Your task to perform on an android device: add a contact in the contacts app Image 0: 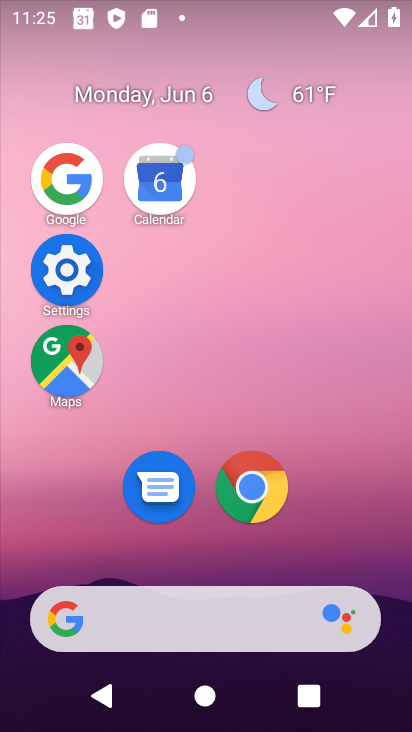
Step 0: press home button
Your task to perform on an android device: add a contact in the contacts app Image 1: 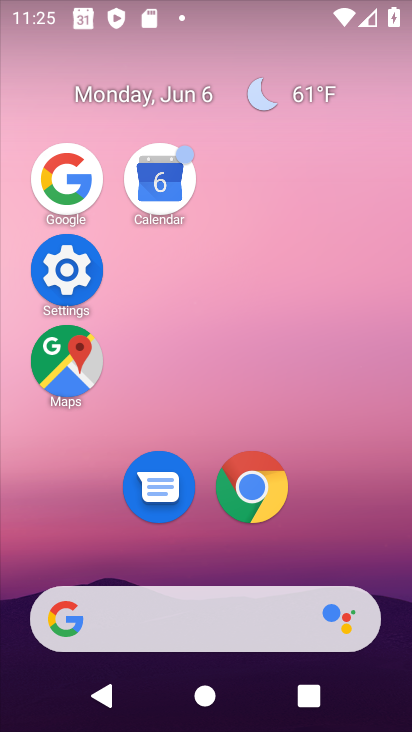
Step 1: drag from (312, 502) to (285, 119)
Your task to perform on an android device: add a contact in the contacts app Image 2: 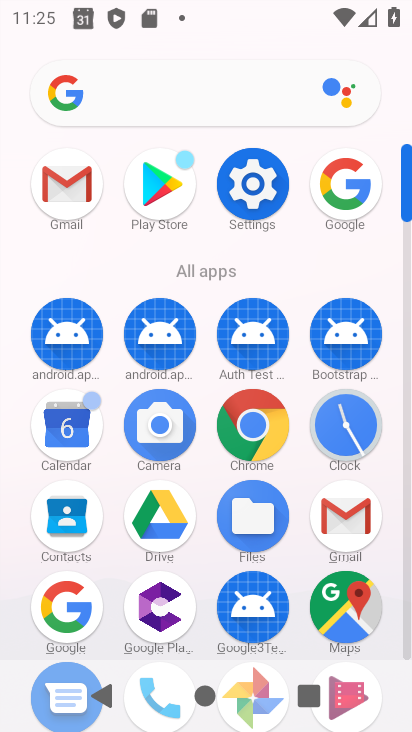
Step 2: click (58, 520)
Your task to perform on an android device: add a contact in the contacts app Image 3: 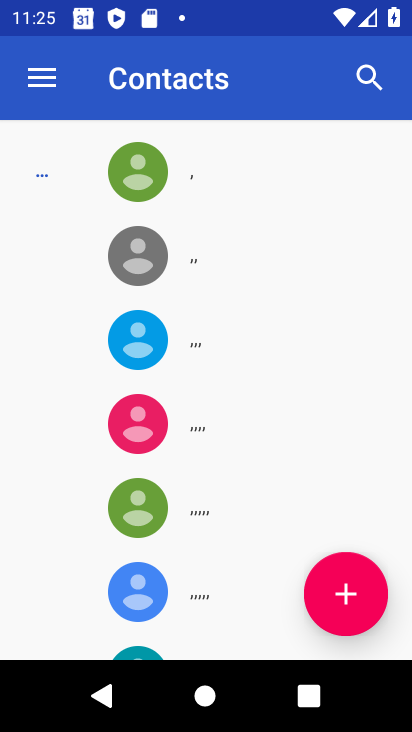
Step 3: click (384, 565)
Your task to perform on an android device: add a contact in the contacts app Image 4: 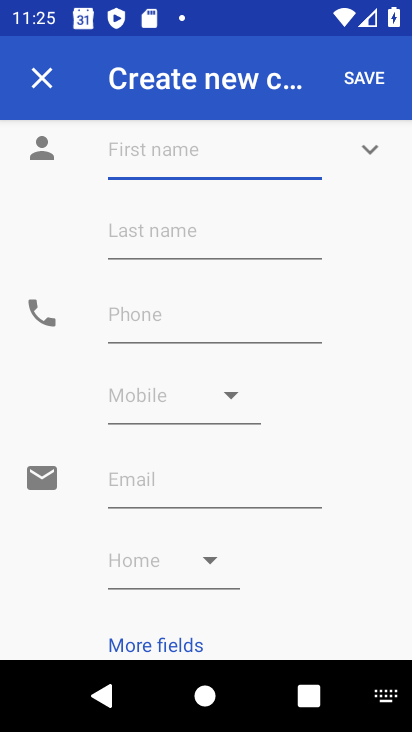
Step 4: type "wwq"
Your task to perform on an android device: add a contact in the contacts app Image 5: 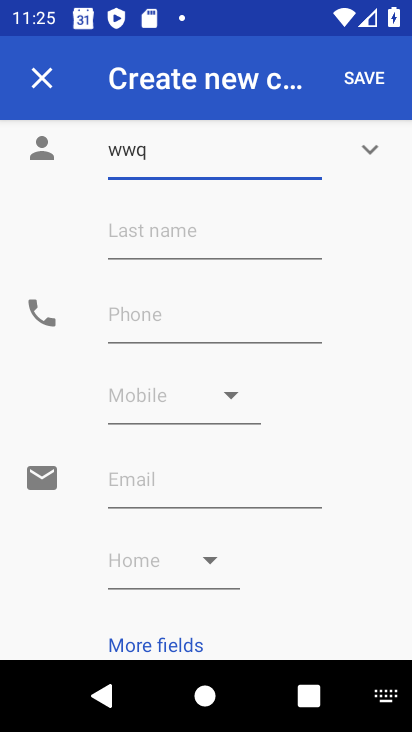
Step 5: click (192, 316)
Your task to perform on an android device: add a contact in the contacts app Image 6: 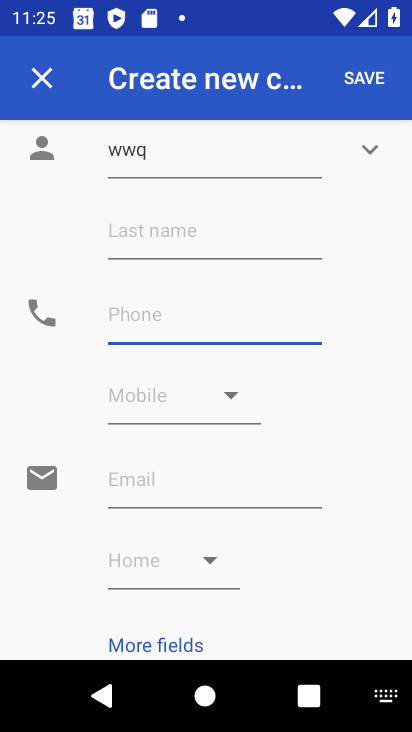
Step 6: type "1122331212"
Your task to perform on an android device: add a contact in the contacts app Image 7: 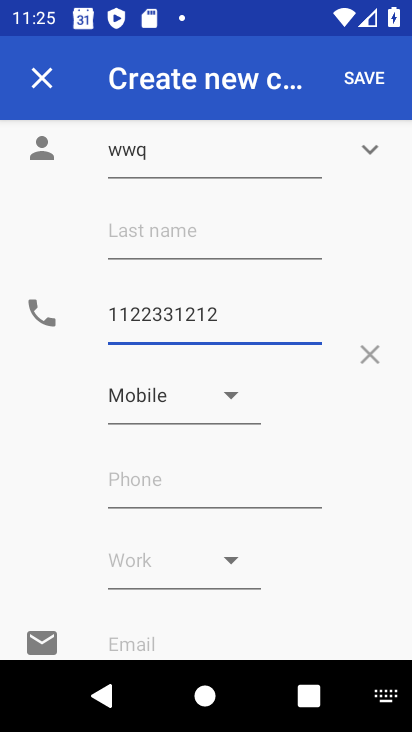
Step 7: click (354, 70)
Your task to perform on an android device: add a contact in the contacts app Image 8: 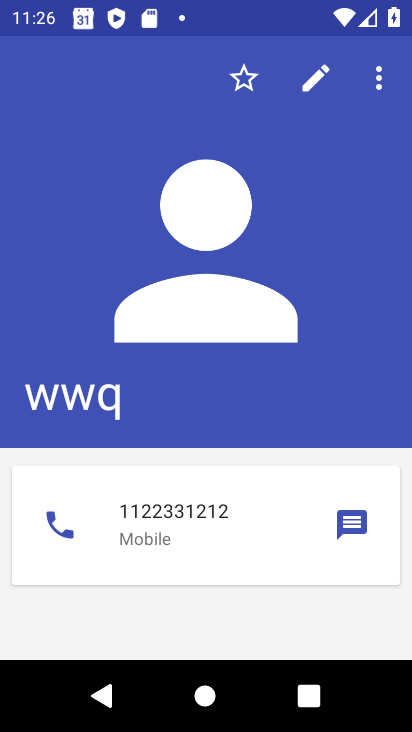
Step 8: task complete